Your task to perform on an android device: Open Google Maps and go to "Timeline" Image 0: 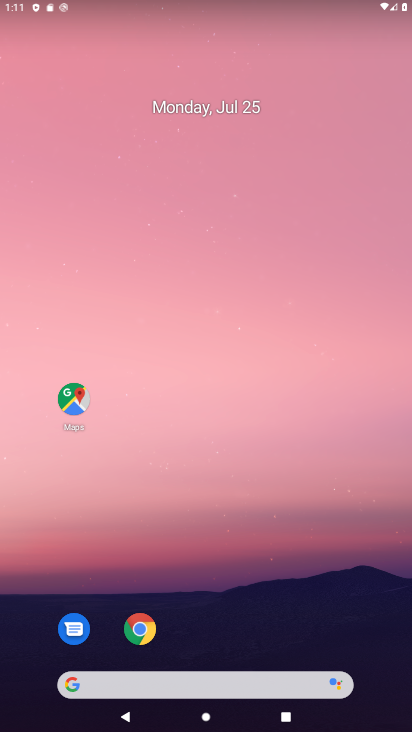
Step 0: drag from (197, 635) to (247, 221)
Your task to perform on an android device: Open Google Maps and go to "Timeline" Image 1: 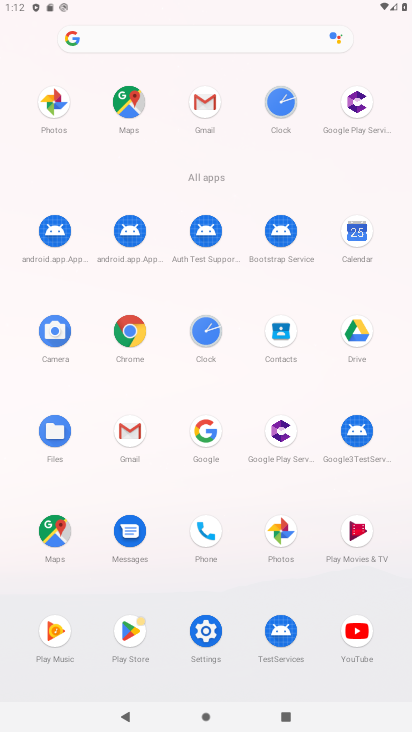
Step 1: click (49, 543)
Your task to perform on an android device: Open Google Maps and go to "Timeline" Image 2: 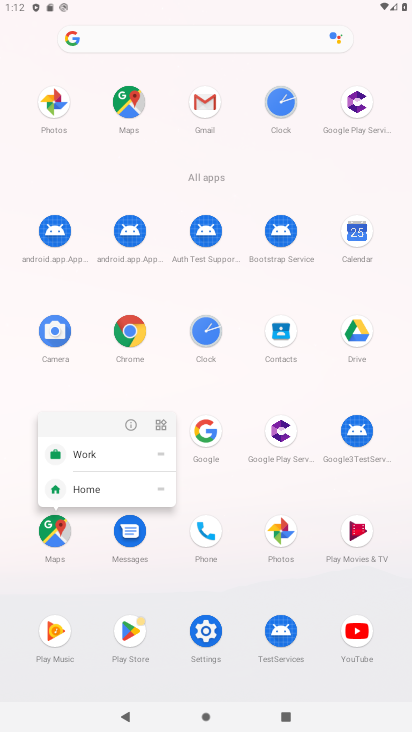
Step 2: click (132, 421)
Your task to perform on an android device: Open Google Maps and go to "Timeline" Image 3: 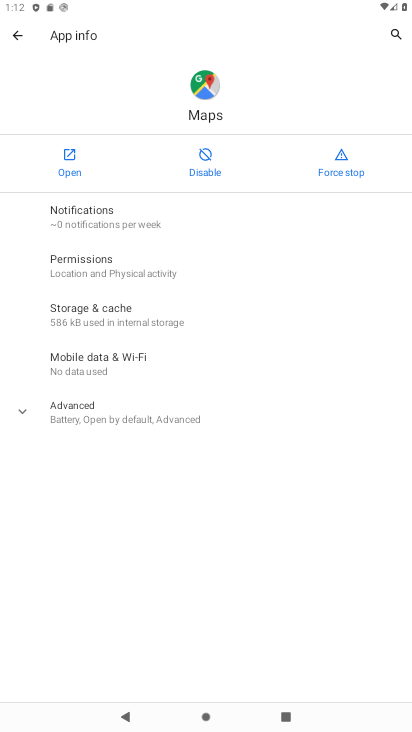
Step 3: click (55, 153)
Your task to perform on an android device: Open Google Maps and go to "Timeline" Image 4: 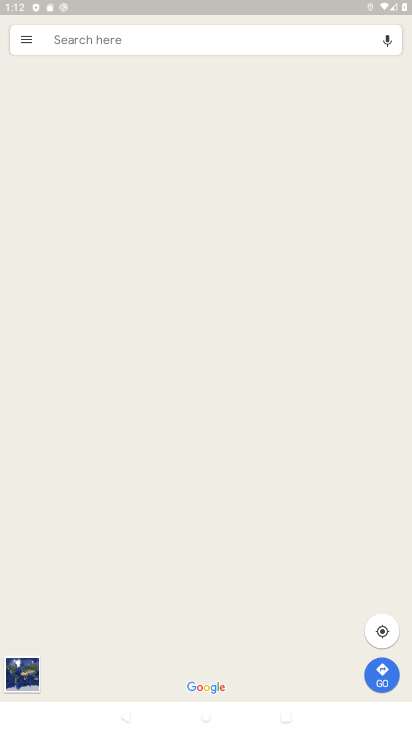
Step 4: drag from (213, 654) to (213, 129)
Your task to perform on an android device: Open Google Maps and go to "Timeline" Image 5: 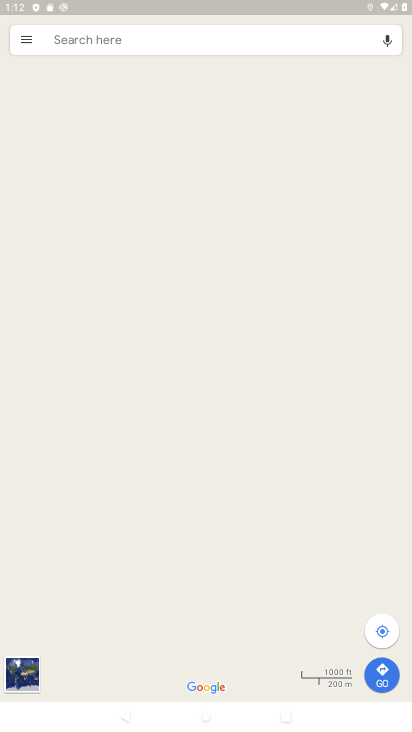
Step 5: drag from (165, 627) to (262, 247)
Your task to perform on an android device: Open Google Maps and go to "Timeline" Image 6: 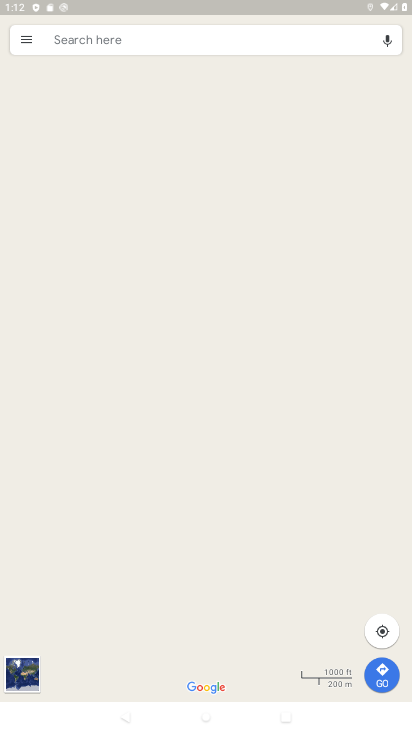
Step 6: drag from (115, 568) to (230, 186)
Your task to perform on an android device: Open Google Maps and go to "Timeline" Image 7: 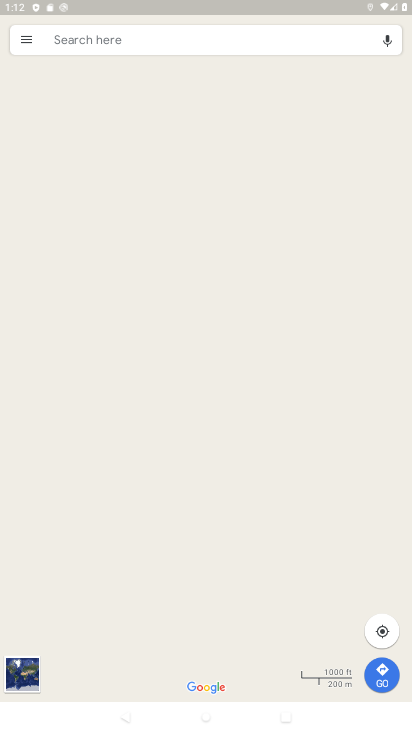
Step 7: click (21, 46)
Your task to perform on an android device: Open Google Maps and go to "Timeline" Image 8: 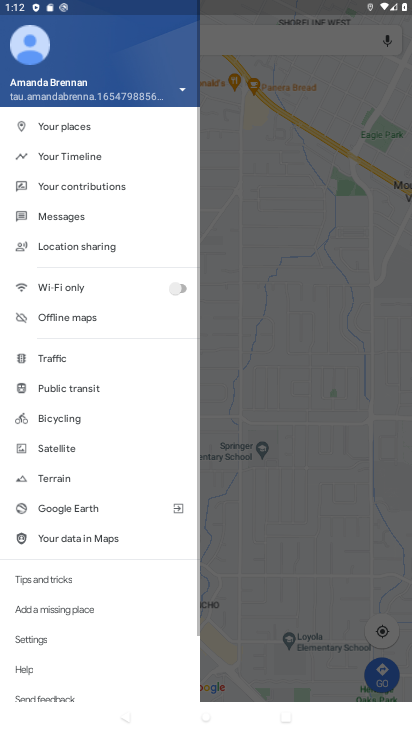
Step 8: click (78, 153)
Your task to perform on an android device: Open Google Maps and go to "Timeline" Image 9: 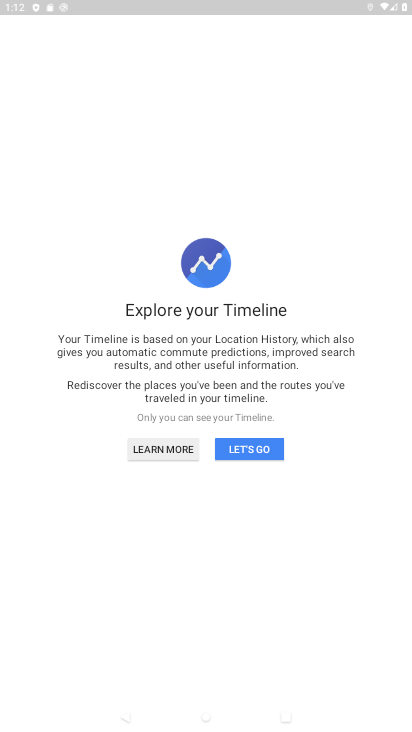
Step 9: drag from (226, 540) to (242, 209)
Your task to perform on an android device: Open Google Maps and go to "Timeline" Image 10: 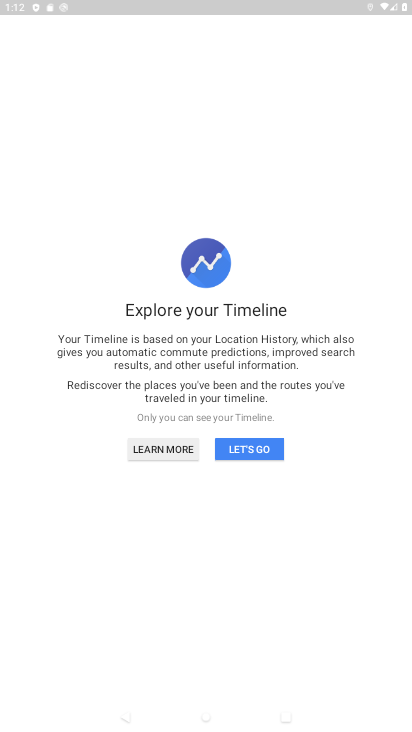
Step 10: click (261, 452)
Your task to perform on an android device: Open Google Maps and go to "Timeline" Image 11: 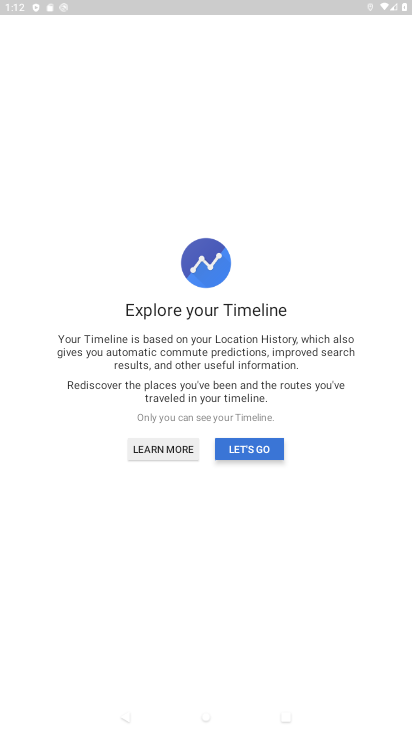
Step 11: task complete